Your task to perform on an android device: turn off notifications settings in the gmail app Image 0: 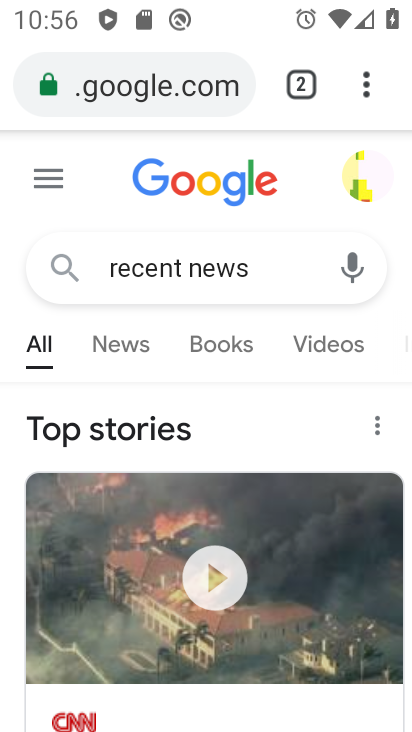
Step 0: press home button
Your task to perform on an android device: turn off notifications settings in the gmail app Image 1: 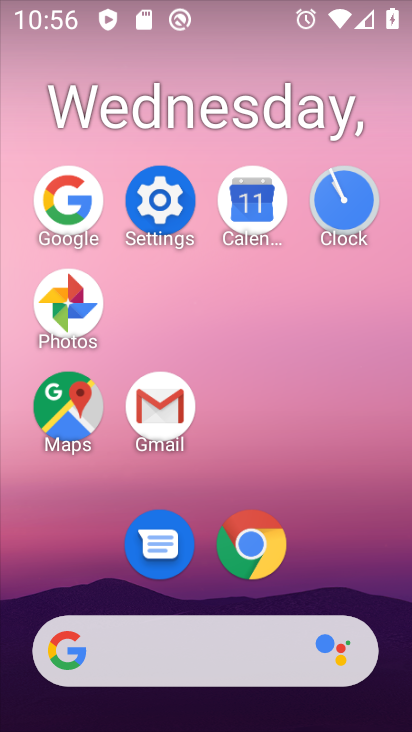
Step 1: click (180, 397)
Your task to perform on an android device: turn off notifications settings in the gmail app Image 2: 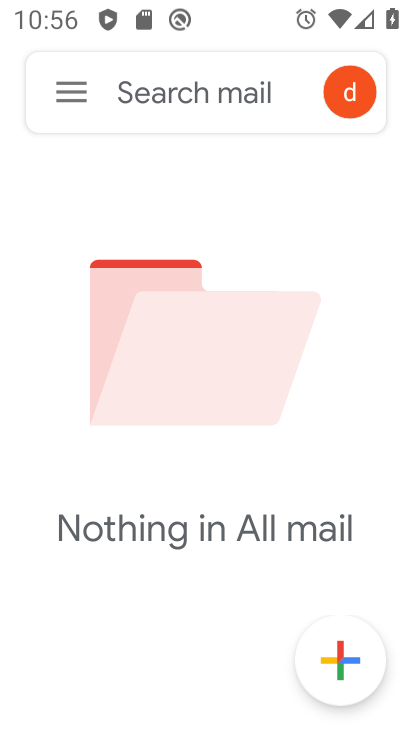
Step 2: click (66, 85)
Your task to perform on an android device: turn off notifications settings in the gmail app Image 3: 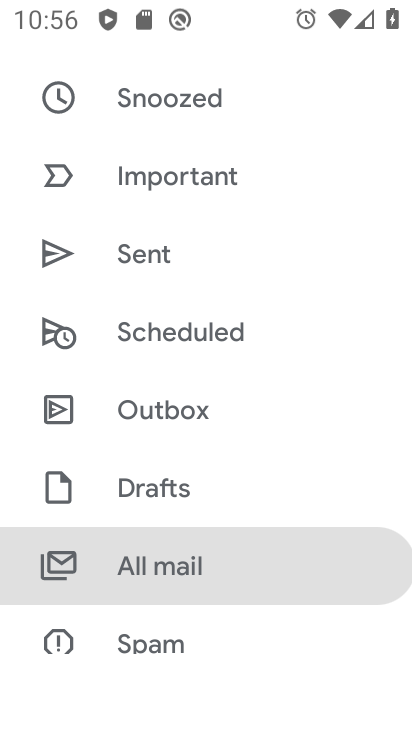
Step 3: drag from (234, 542) to (274, 95)
Your task to perform on an android device: turn off notifications settings in the gmail app Image 4: 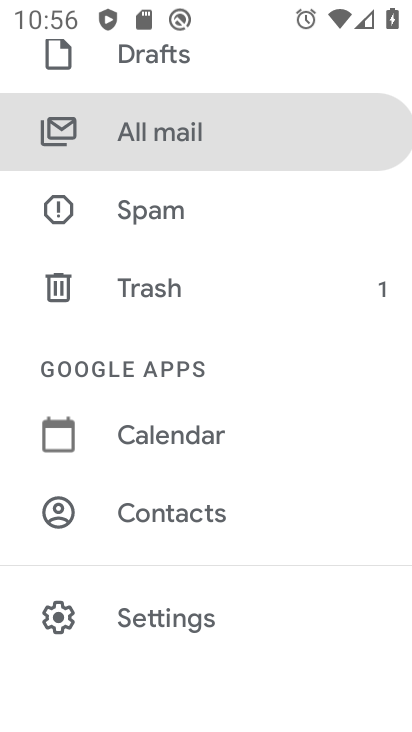
Step 4: click (215, 616)
Your task to perform on an android device: turn off notifications settings in the gmail app Image 5: 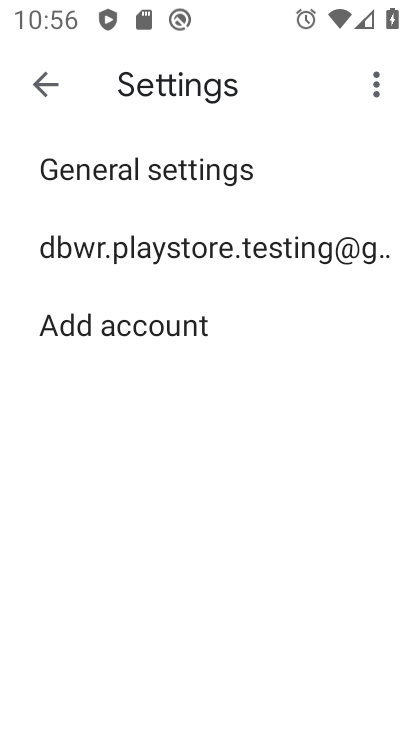
Step 5: click (164, 252)
Your task to perform on an android device: turn off notifications settings in the gmail app Image 6: 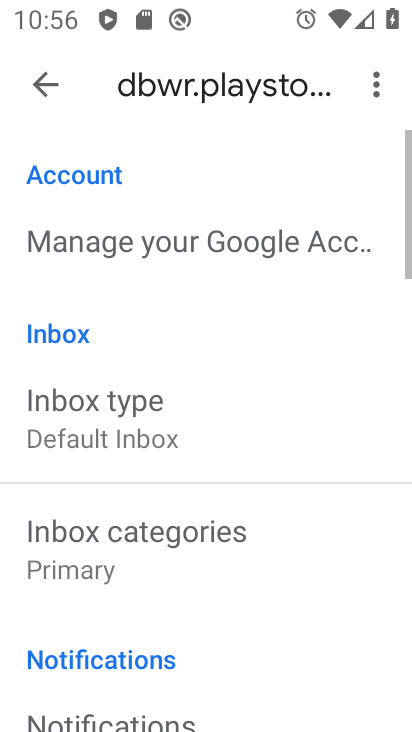
Step 6: drag from (222, 545) to (213, 181)
Your task to perform on an android device: turn off notifications settings in the gmail app Image 7: 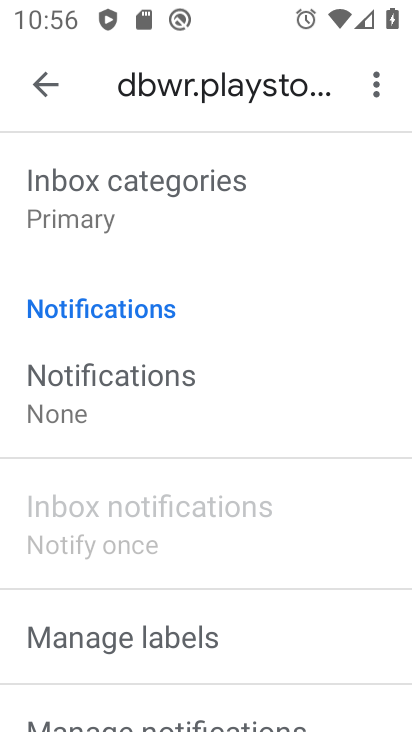
Step 7: click (183, 381)
Your task to perform on an android device: turn off notifications settings in the gmail app Image 8: 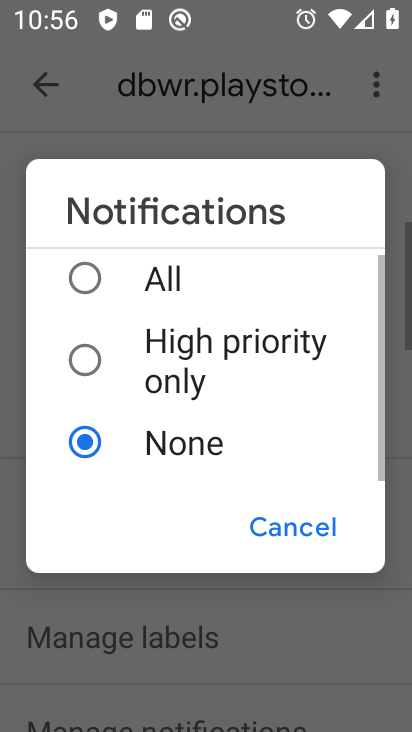
Step 8: task complete